Your task to perform on an android device: Do I have any events tomorrow? Image 0: 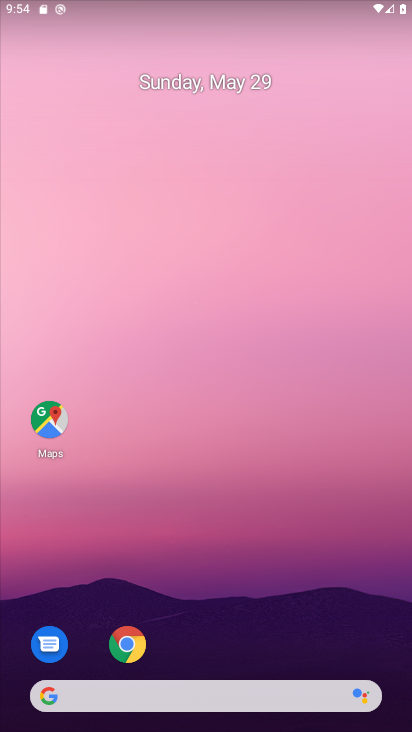
Step 0: drag from (124, 719) to (156, 0)
Your task to perform on an android device: Do I have any events tomorrow? Image 1: 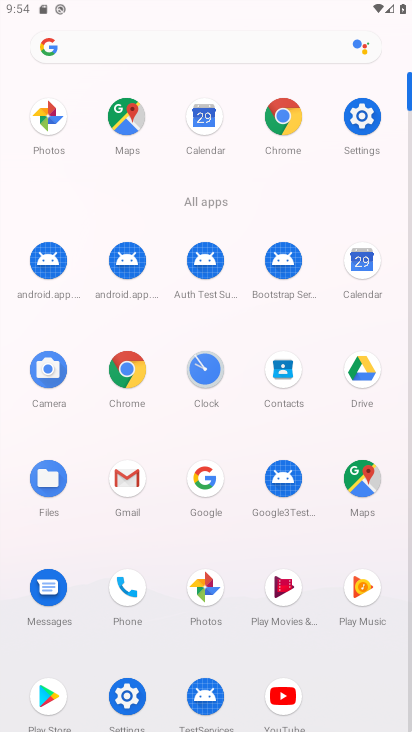
Step 1: click (368, 271)
Your task to perform on an android device: Do I have any events tomorrow? Image 2: 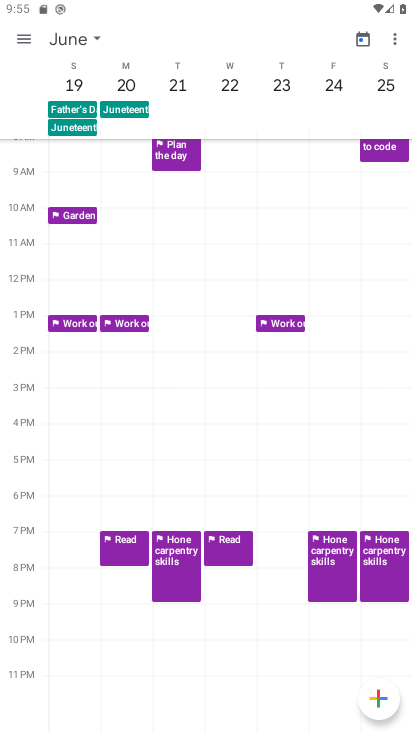
Step 2: click (98, 37)
Your task to perform on an android device: Do I have any events tomorrow? Image 3: 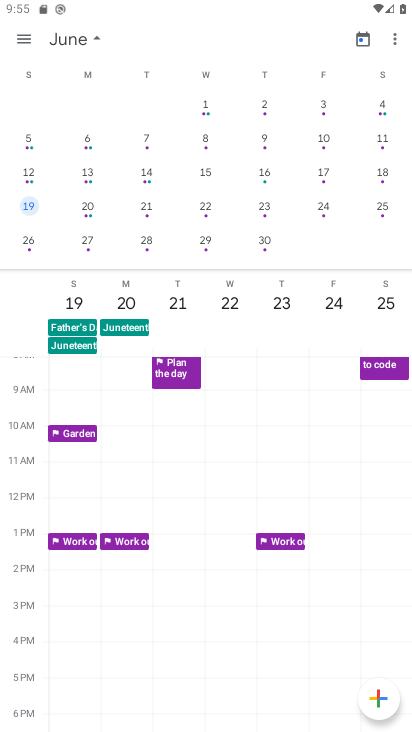
Step 3: drag from (15, 109) to (394, 110)
Your task to perform on an android device: Do I have any events tomorrow? Image 4: 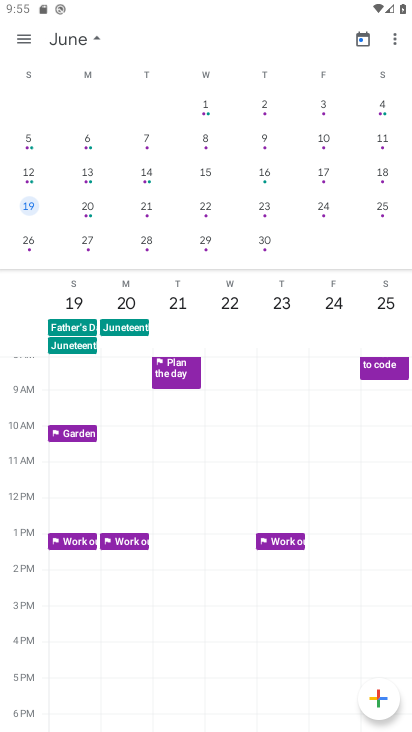
Step 4: drag from (64, 103) to (408, 108)
Your task to perform on an android device: Do I have any events tomorrow? Image 5: 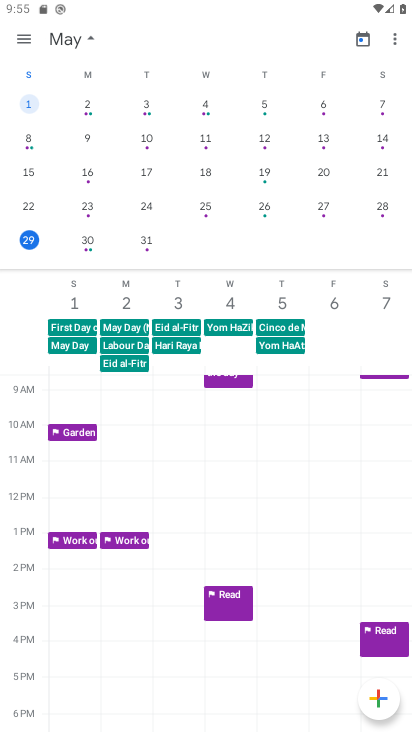
Step 5: click (88, 31)
Your task to perform on an android device: Do I have any events tomorrow? Image 6: 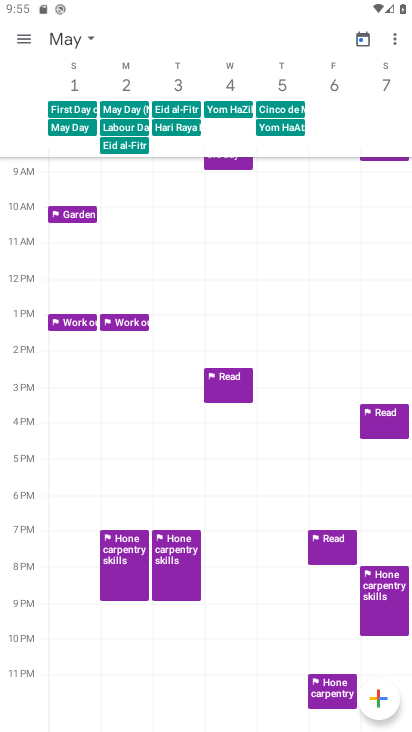
Step 6: click (28, 41)
Your task to perform on an android device: Do I have any events tomorrow? Image 7: 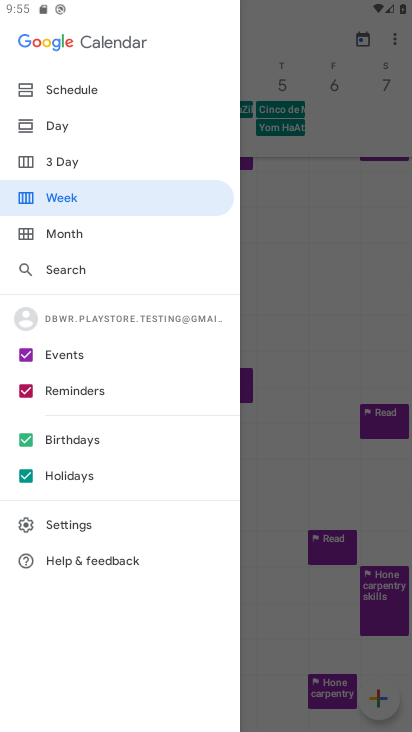
Step 7: click (24, 395)
Your task to perform on an android device: Do I have any events tomorrow? Image 8: 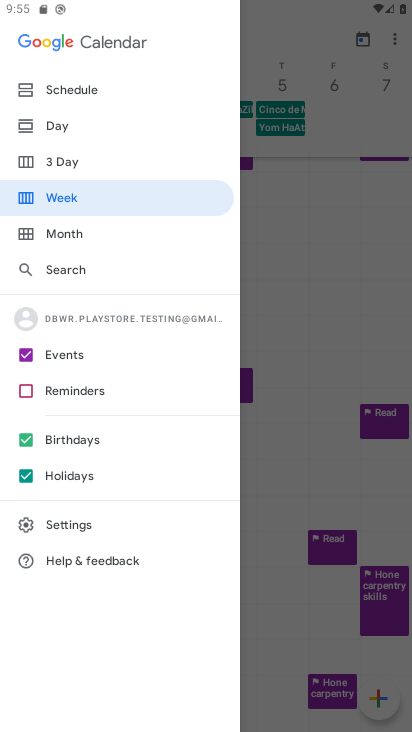
Step 8: click (30, 445)
Your task to perform on an android device: Do I have any events tomorrow? Image 9: 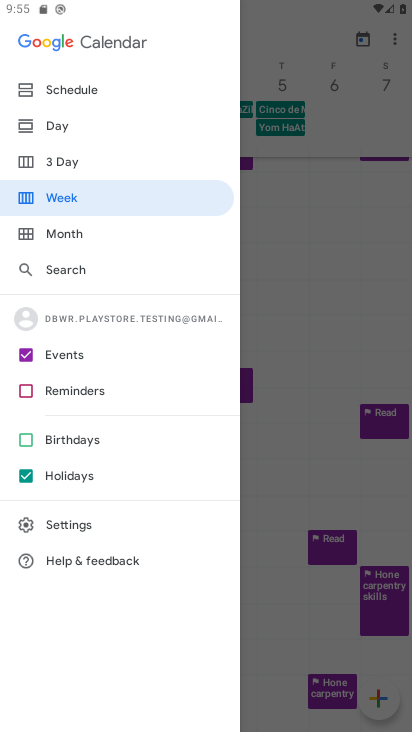
Step 9: click (25, 473)
Your task to perform on an android device: Do I have any events tomorrow? Image 10: 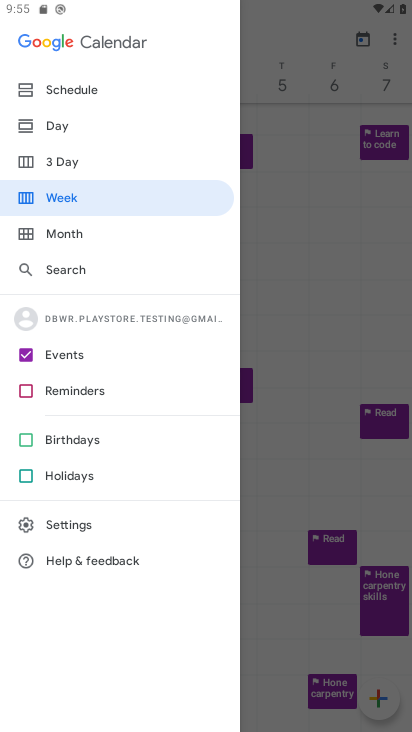
Step 10: click (77, 131)
Your task to perform on an android device: Do I have any events tomorrow? Image 11: 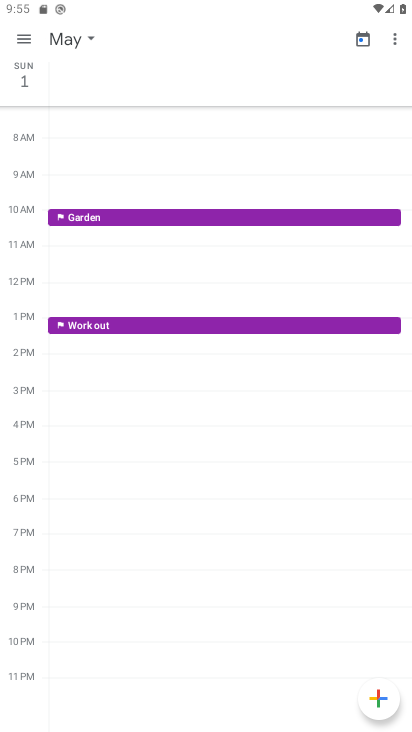
Step 11: click (92, 44)
Your task to perform on an android device: Do I have any events tomorrow? Image 12: 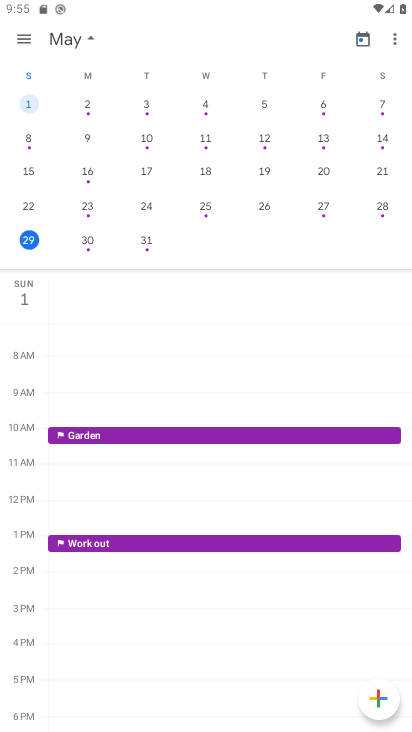
Step 12: click (88, 244)
Your task to perform on an android device: Do I have any events tomorrow? Image 13: 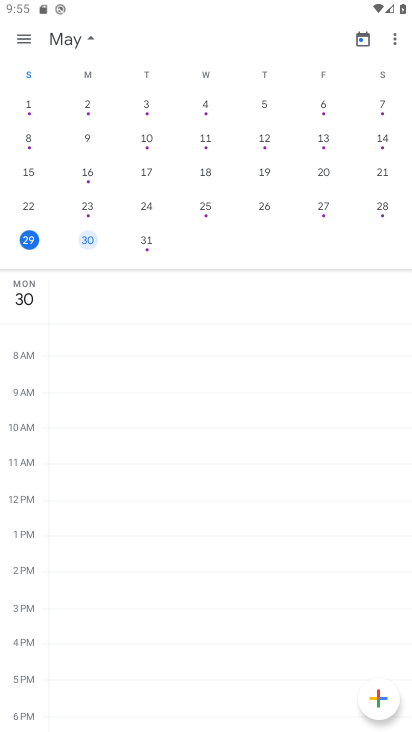
Step 13: click (82, 36)
Your task to perform on an android device: Do I have any events tomorrow? Image 14: 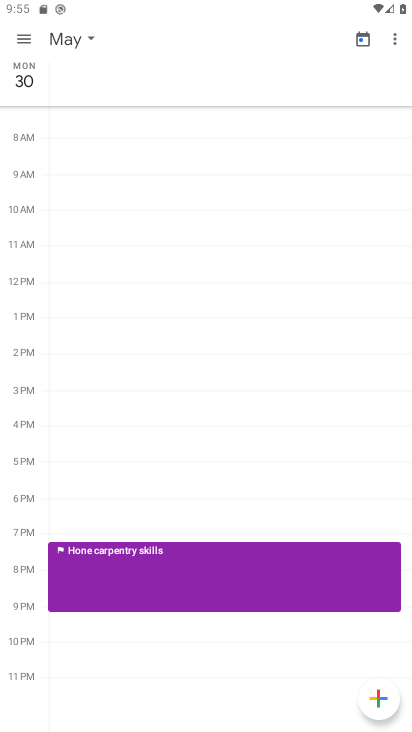
Step 14: click (187, 568)
Your task to perform on an android device: Do I have any events tomorrow? Image 15: 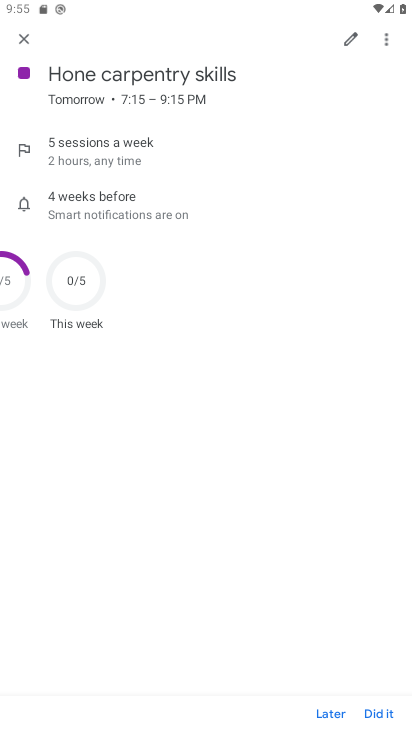
Step 15: task complete